Your task to perform on an android device: Open settings Image 0: 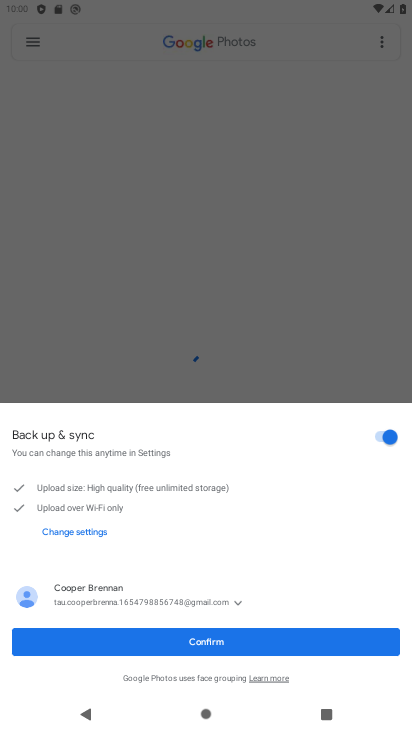
Step 0: press home button
Your task to perform on an android device: Open settings Image 1: 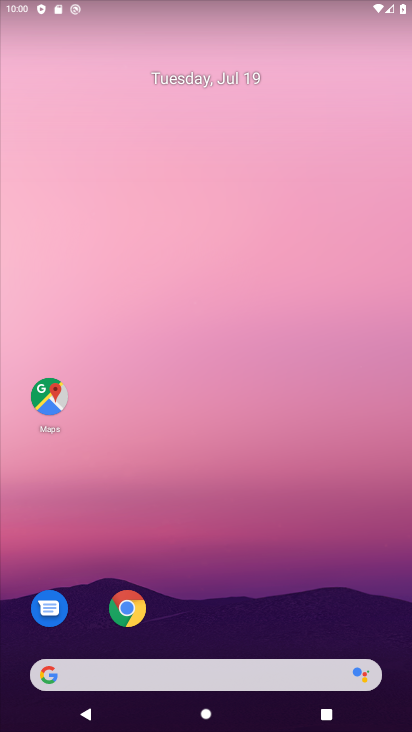
Step 1: drag from (195, 635) to (245, 7)
Your task to perform on an android device: Open settings Image 2: 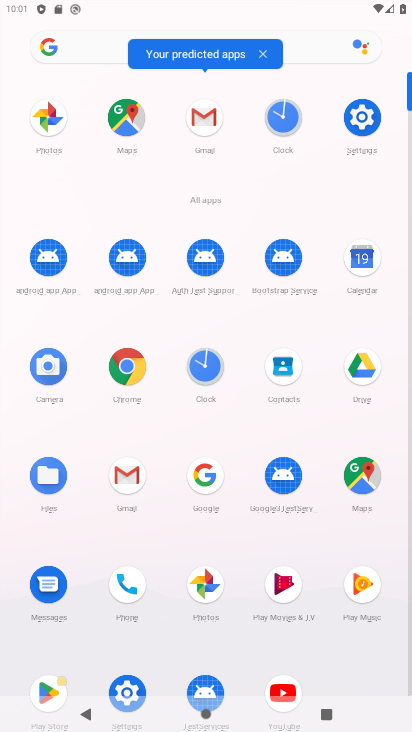
Step 2: click (365, 134)
Your task to perform on an android device: Open settings Image 3: 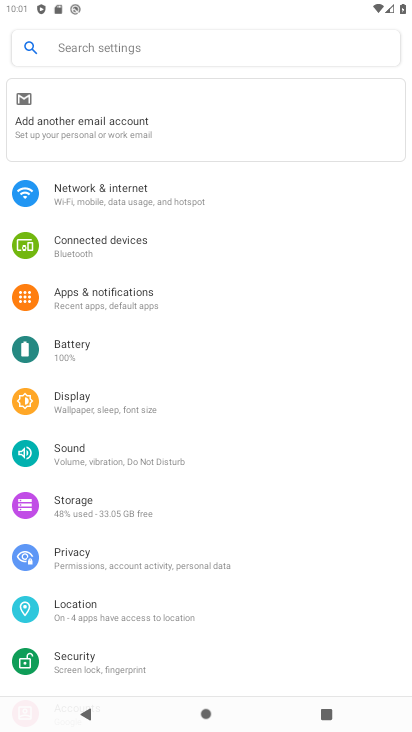
Step 3: task complete